Your task to perform on an android device: toggle airplane mode Image 0: 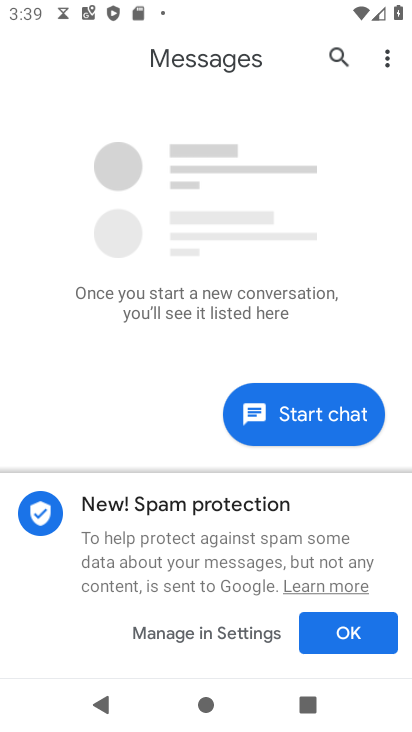
Step 0: press home button
Your task to perform on an android device: toggle airplane mode Image 1: 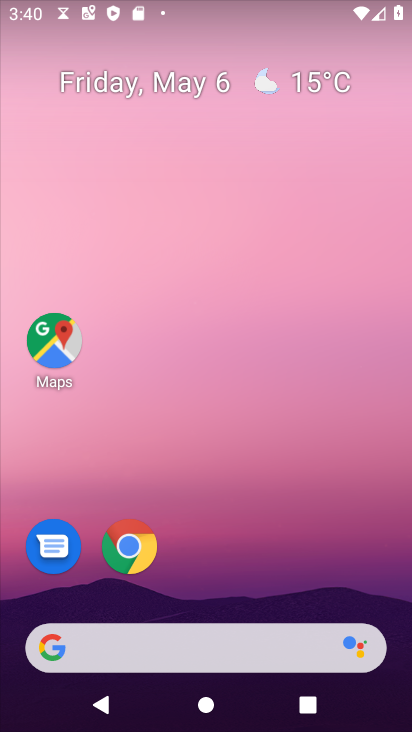
Step 1: drag from (271, 583) to (225, 54)
Your task to perform on an android device: toggle airplane mode Image 2: 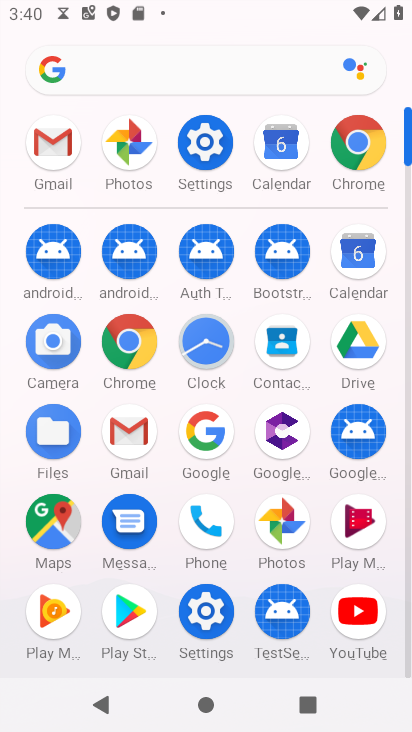
Step 2: click (216, 136)
Your task to perform on an android device: toggle airplane mode Image 3: 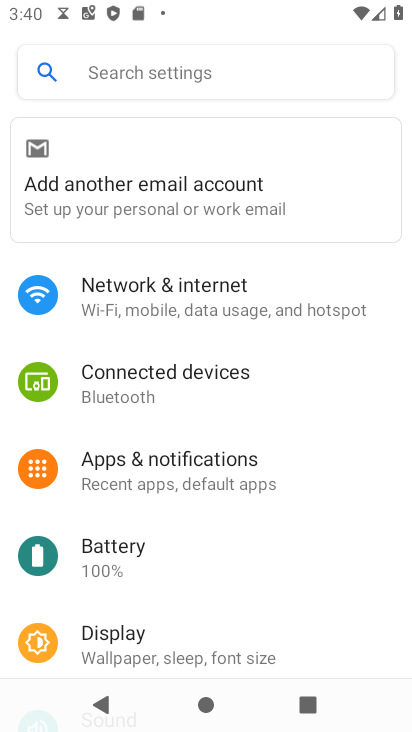
Step 3: click (236, 292)
Your task to perform on an android device: toggle airplane mode Image 4: 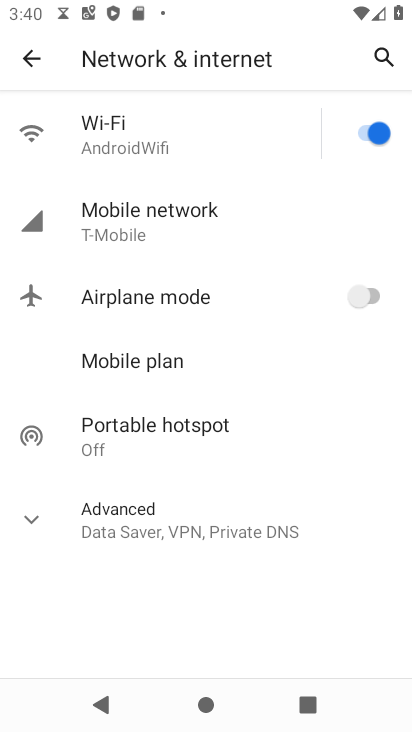
Step 4: click (365, 294)
Your task to perform on an android device: toggle airplane mode Image 5: 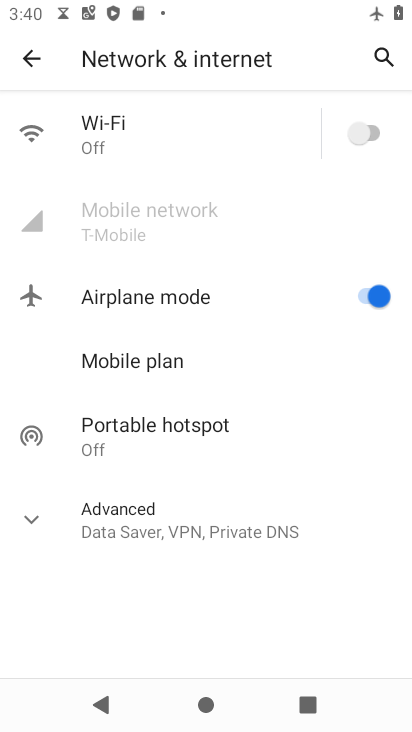
Step 5: task complete